Your task to perform on an android device: toggle location history Image 0: 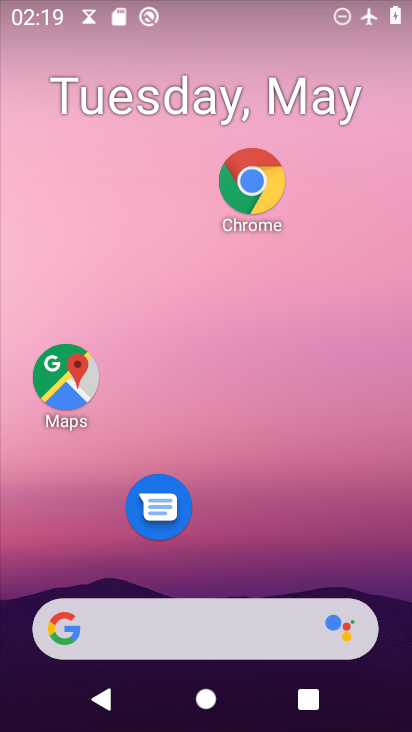
Step 0: drag from (312, 516) to (331, 281)
Your task to perform on an android device: toggle location history Image 1: 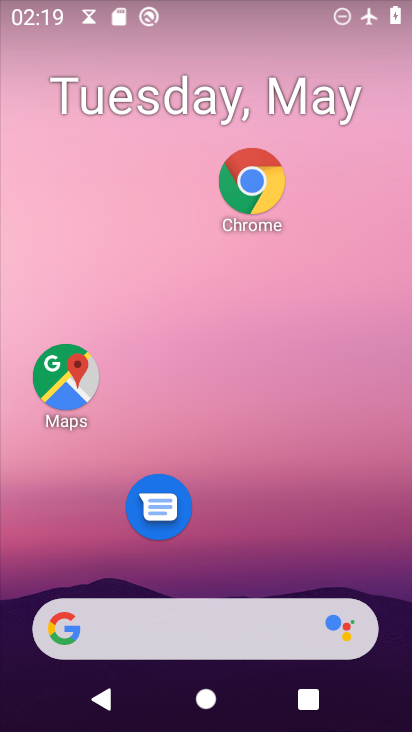
Step 1: drag from (306, 560) to (327, 141)
Your task to perform on an android device: toggle location history Image 2: 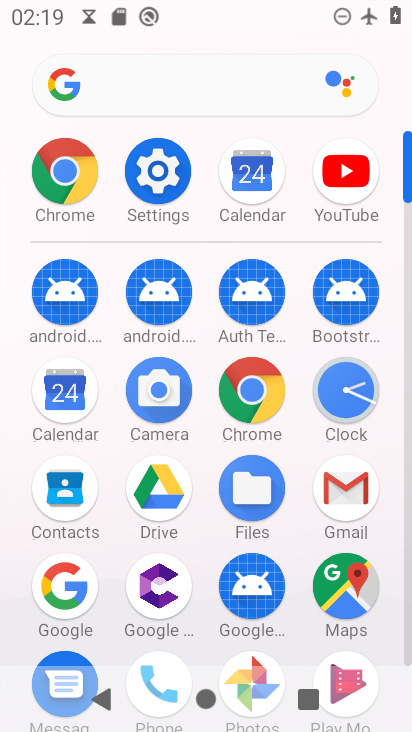
Step 2: click (163, 165)
Your task to perform on an android device: toggle location history Image 3: 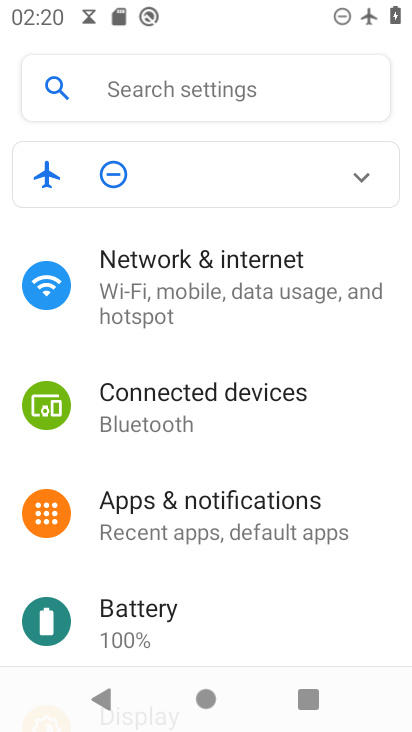
Step 3: drag from (243, 583) to (297, 250)
Your task to perform on an android device: toggle location history Image 4: 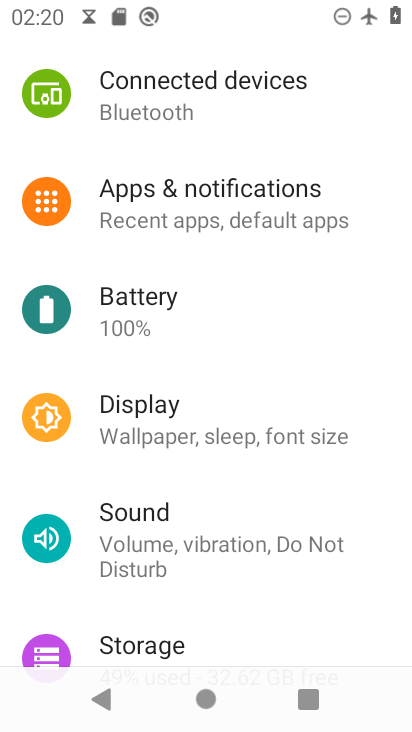
Step 4: drag from (222, 551) to (278, 196)
Your task to perform on an android device: toggle location history Image 5: 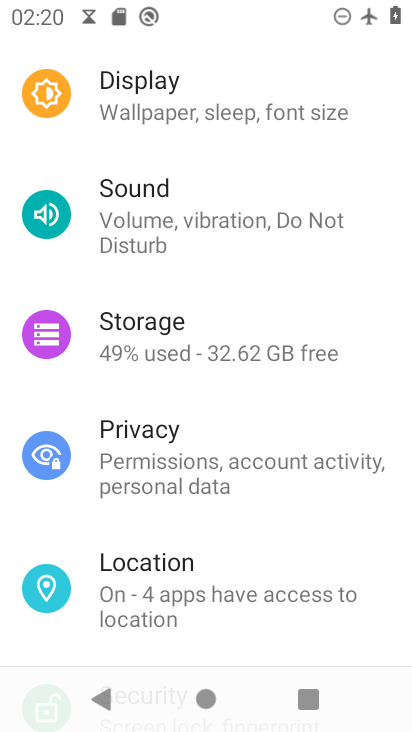
Step 5: click (237, 603)
Your task to perform on an android device: toggle location history Image 6: 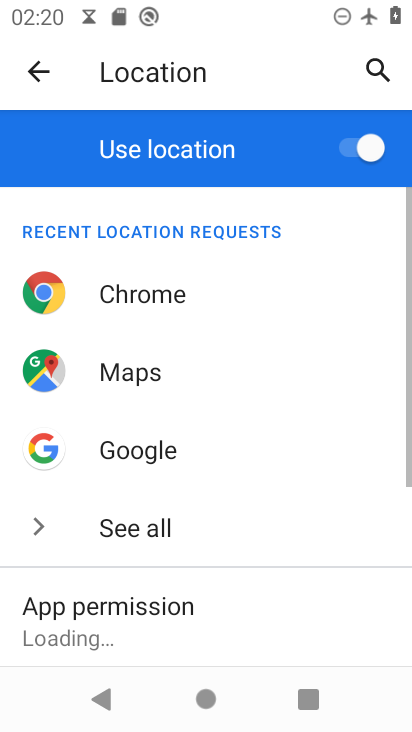
Step 6: drag from (227, 549) to (295, 206)
Your task to perform on an android device: toggle location history Image 7: 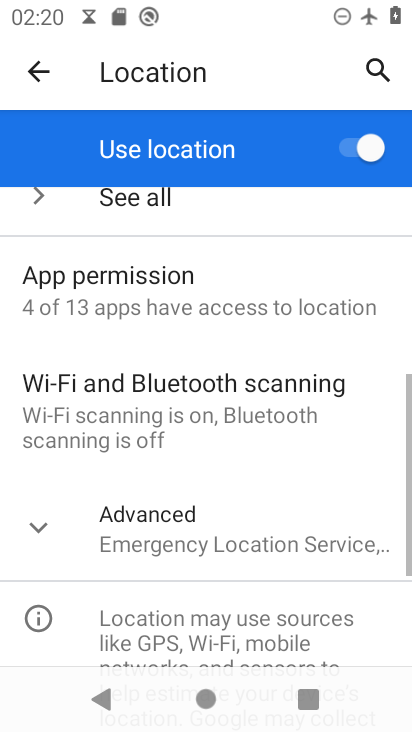
Step 7: drag from (254, 550) to (281, 395)
Your task to perform on an android device: toggle location history Image 8: 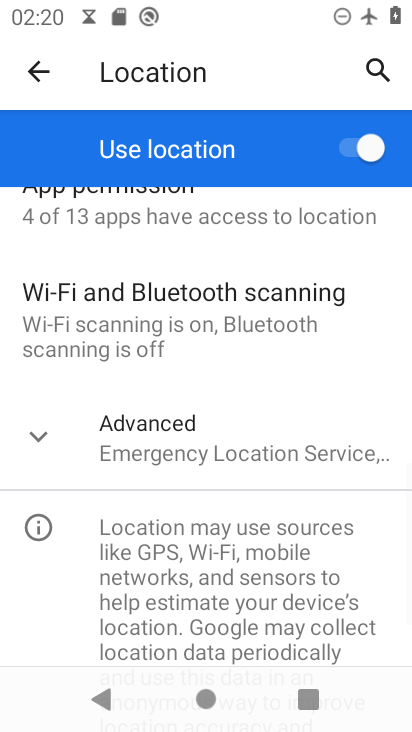
Step 8: click (243, 474)
Your task to perform on an android device: toggle location history Image 9: 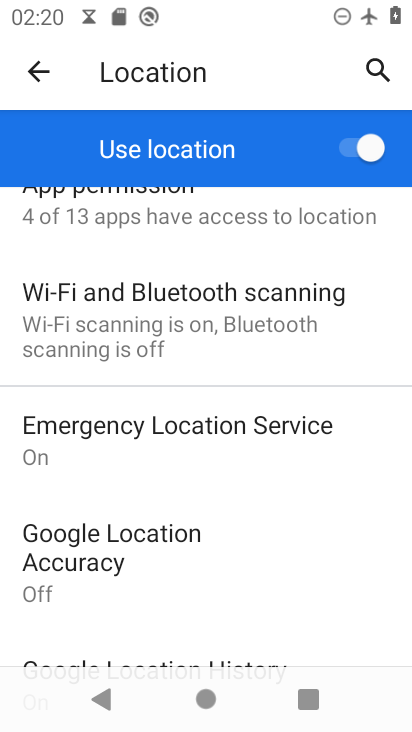
Step 9: drag from (249, 587) to (268, 308)
Your task to perform on an android device: toggle location history Image 10: 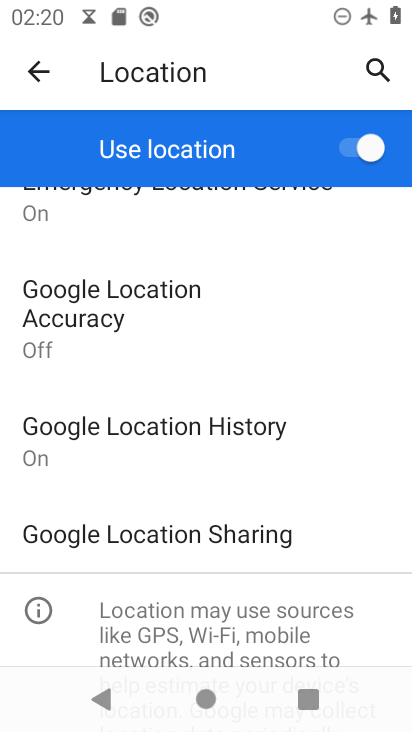
Step 10: click (189, 430)
Your task to perform on an android device: toggle location history Image 11: 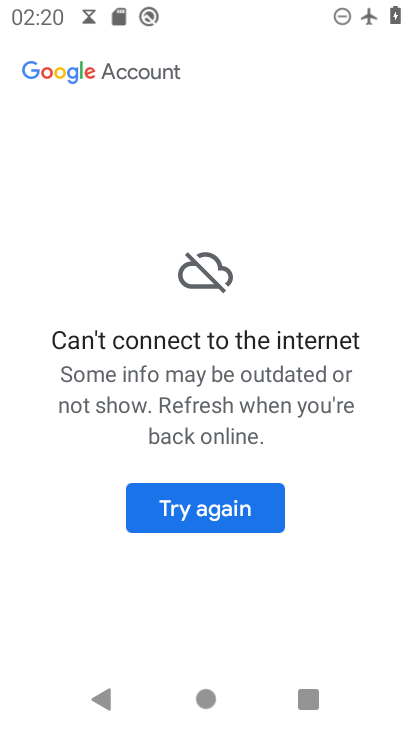
Step 11: drag from (281, 525) to (291, 491)
Your task to perform on an android device: toggle location history Image 12: 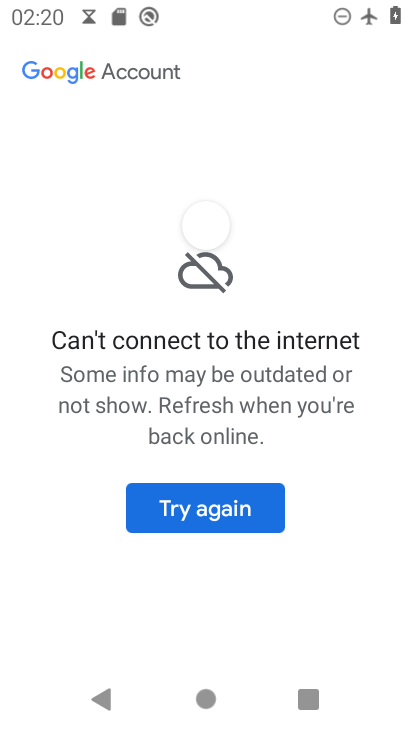
Step 12: click (234, 498)
Your task to perform on an android device: toggle location history Image 13: 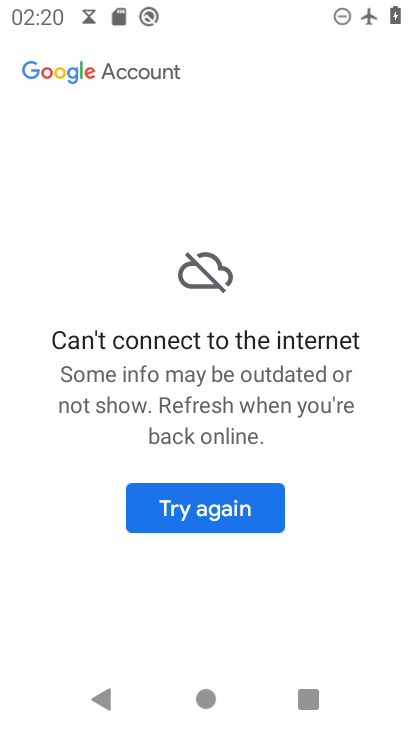
Step 13: task complete